Your task to perform on an android device: open wifi settings Image 0: 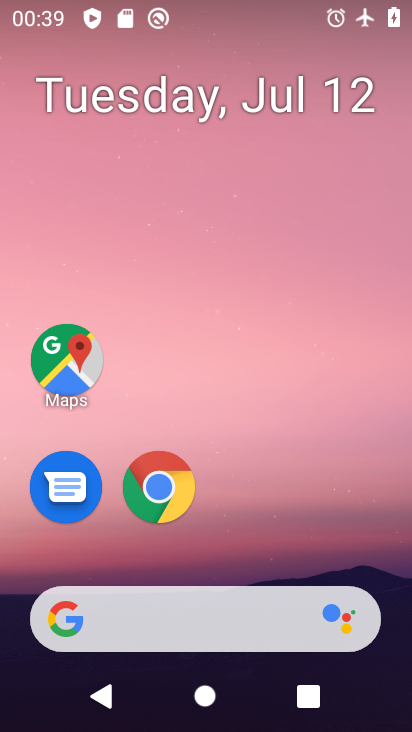
Step 0: drag from (302, 520) to (347, 86)
Your task to perform on an android device: open wifi settings Image 1: 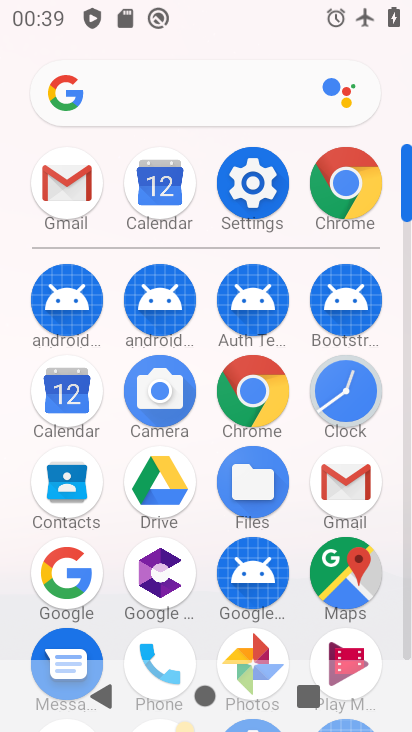
Step 1: click (253, 193)
Your task to perform on an android device: open wifi settings Image 2: 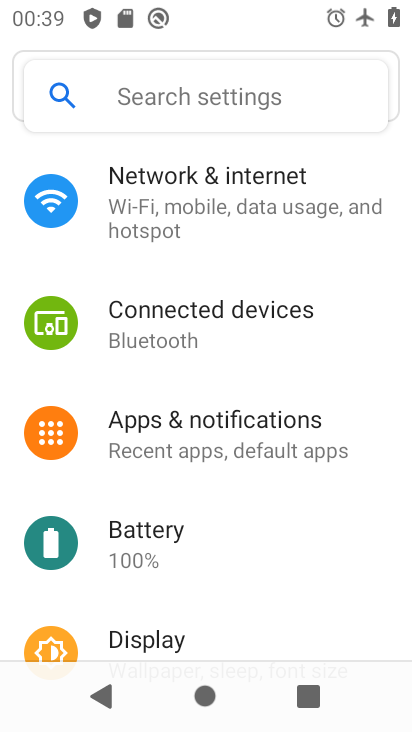
Step 2: drag from (350, 499) to (370, 301)
Your task to perform on an android device: open wifi settings Image 3: 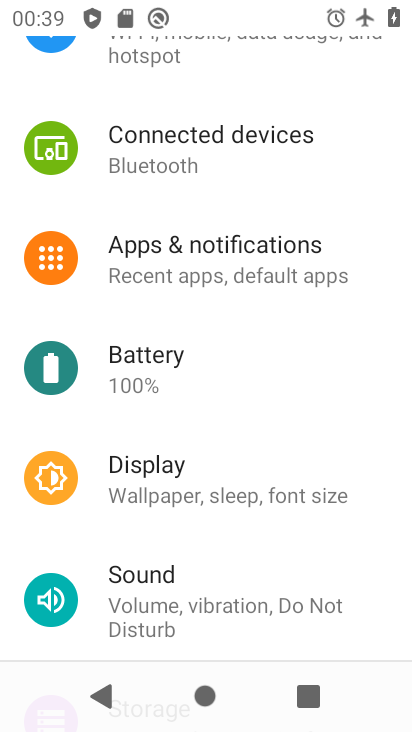
Step 3: drag from (364, 556) to (362, 366)
Your task to perform on an android device: open wifi settings Image 4: 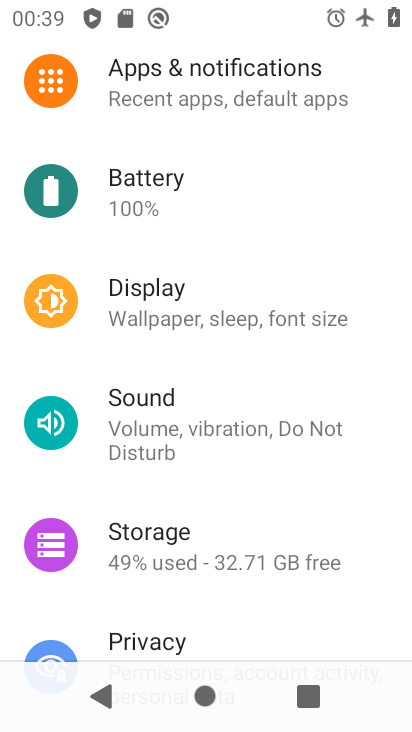
Step 4: drag from (357, 539) to (356, 356)
Your task to perform on an android device: open wifi settings Image 5: 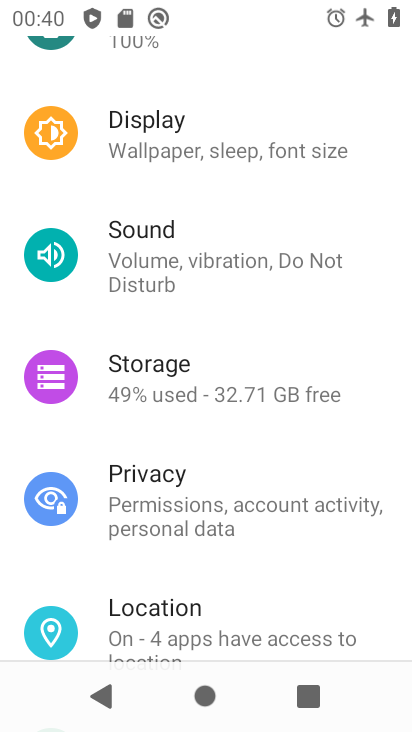
Step 5: drag from (345, 571) to (357, 398)
Your task to perform on an android device: open wifi settings Image 6: 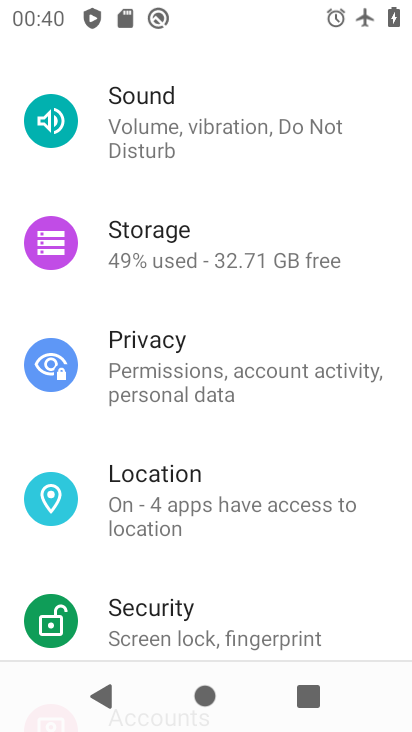
Step 6: drag from (362, 280) to (342, 515)
Your task to perform on an android device: open wifi settings Image 7: 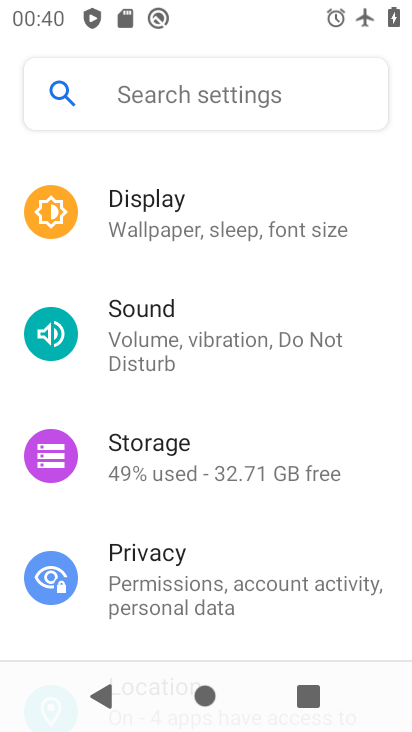
Step 7: drag from (369, 269) to (355, 437)
Your task to perform on an android device: open wifi settings Image 8: 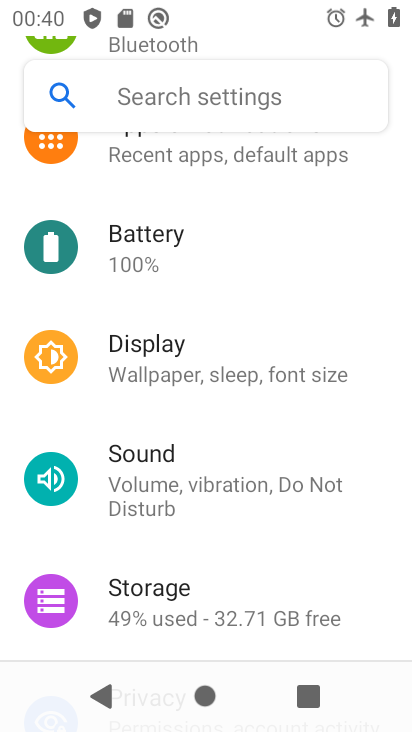
Step 8: drag from (336, 264) to (335, 480)
Your task to perform on an android device: open wifi settings Image 9: 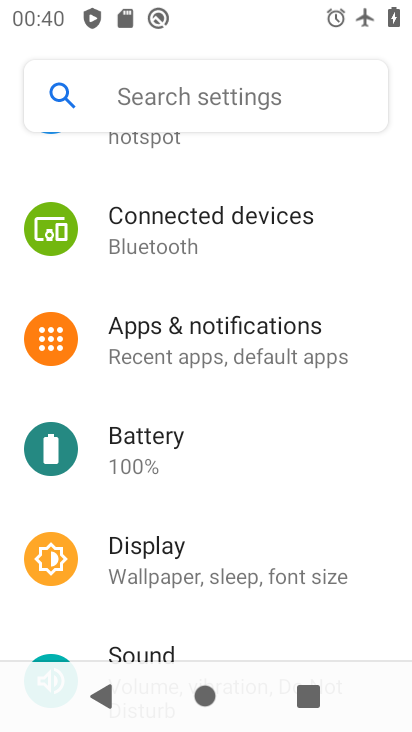
Step 9: drag from (343, 255) to (342, 498)
Your task to perform on an android device: open wifi settings Image 10: 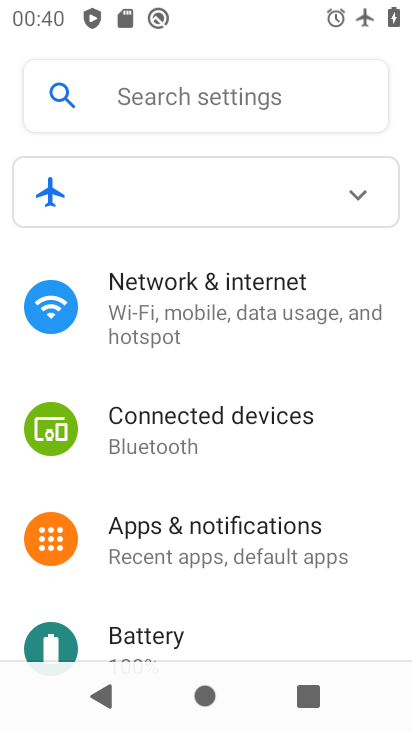
Step 10: click (261, 307)
Your task to perform on an android device: open wifi settings Image 11: 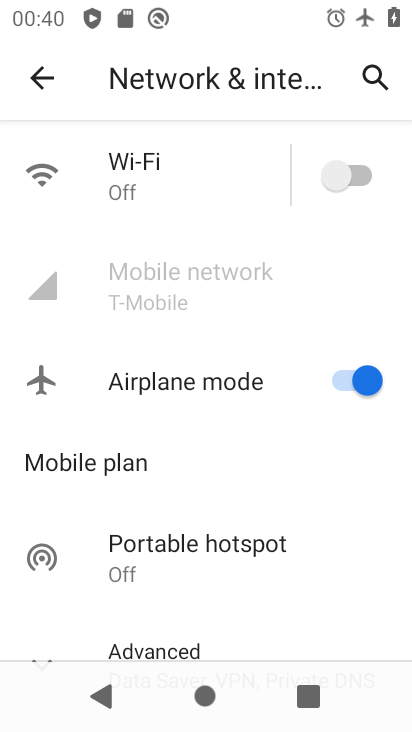
Step 11: click (152, 181)
Your task to perform on an android device: open wifi settings Image 12: 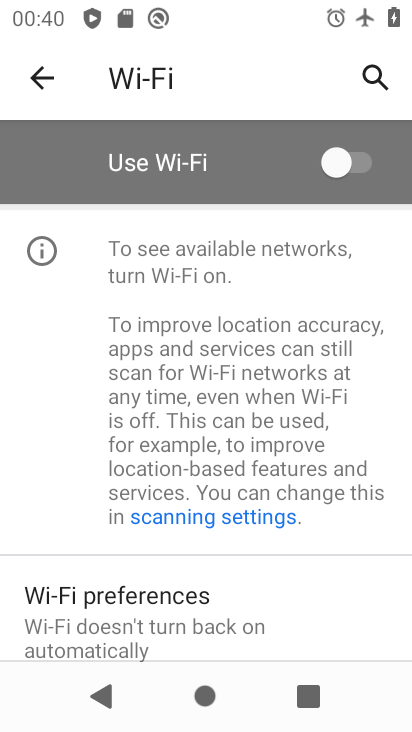
Step 12: task complete